Your task to perform on an android device: set the stopwatch Image 0: 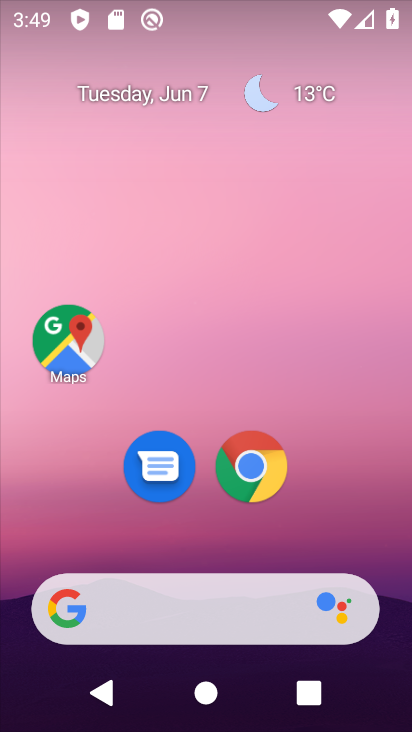
Step 0: drag from (392, 551) to (298, 143)
Your task to perform on an android device: set the stopwatch Image 1: 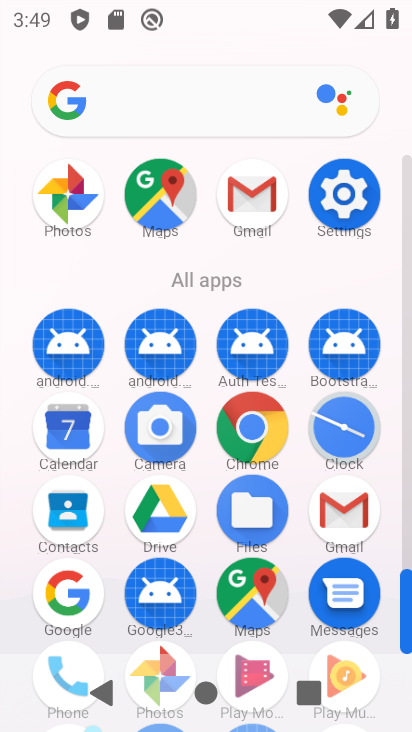
Step 1: click (355, 431)
Your task to perform on an android device: set the stopwatch Image 2: 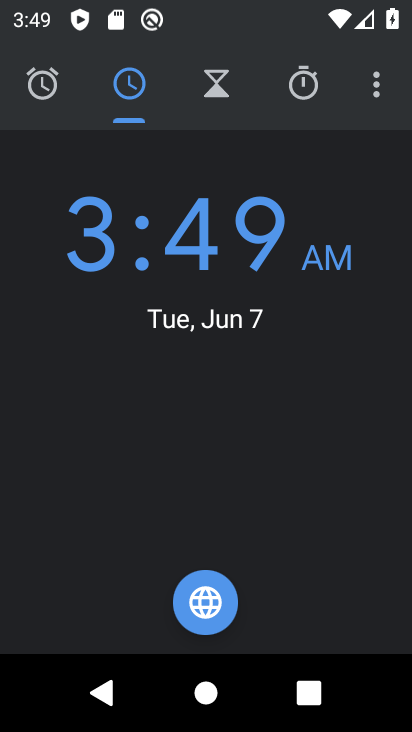
Step 2: click (310, 98)
Your task to perform on an android device: set the stopwatch Image 3: 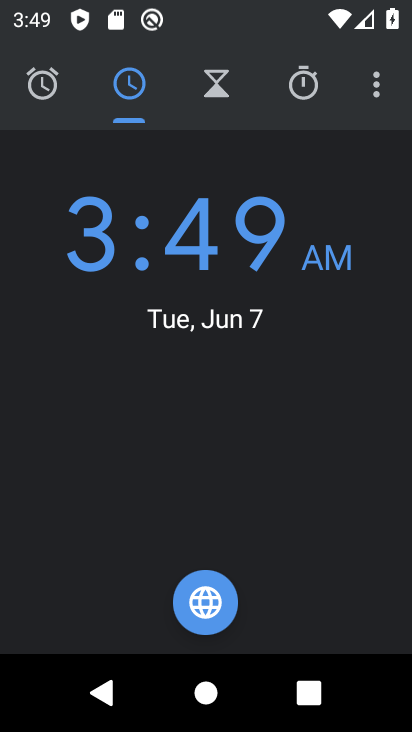
Step 3: click (293, 109)
Your task to perform on an android device: set the stopwatch Image 4: 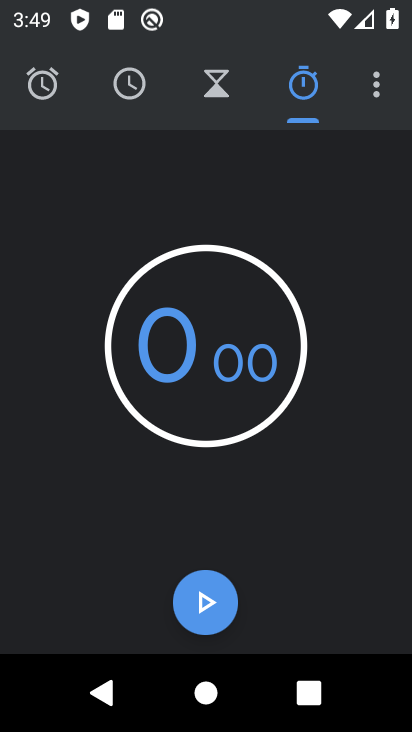
Step 4: click (215, 622)
Your task to perform on an android device: set the stopwatch Image 5: 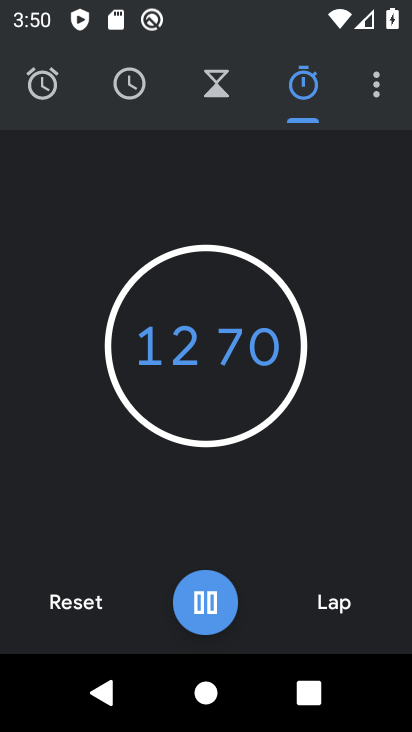
Step 5: task complete